Your task to perform on an android device: delete browsing data in the chrome app Image 0: 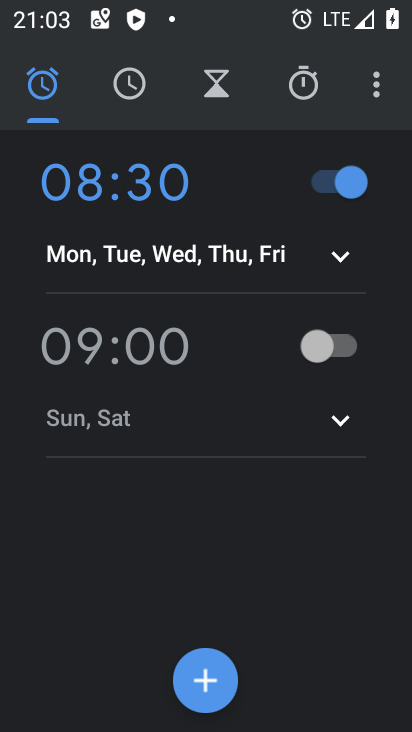
Step 0: press home button
Your task to perform on an android device: delete browsing data in the chrome app Image 1: 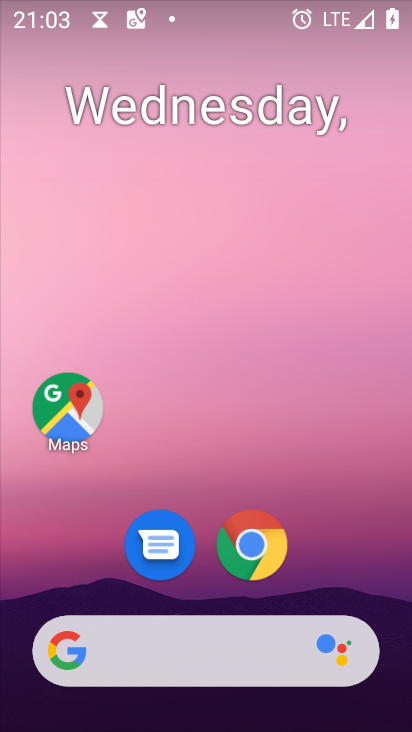
Step 1: click (242, 558)
Your task to perform on an android device: delete browsing data in the chrome app Image 2: 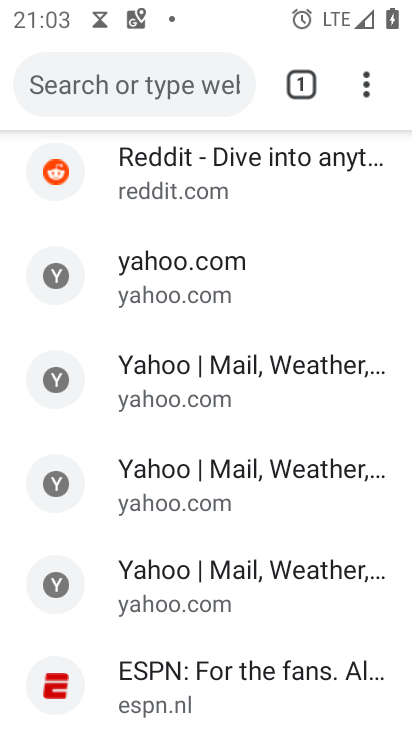
Step 2: drag from (367, 88) to (141, 590)
Your task to perform on an android device: delete browsing data in the chrome app Image 3: 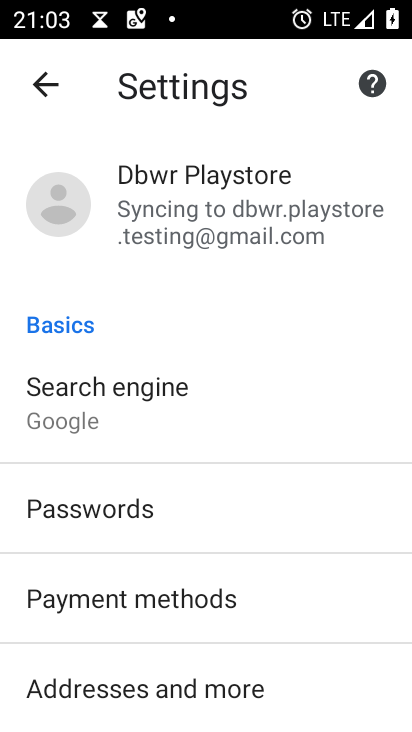
Step 3: drag from (154, 670) to (243, 96)
Your task to perform on an android device: delete browsing data in the chrome app Image 4: 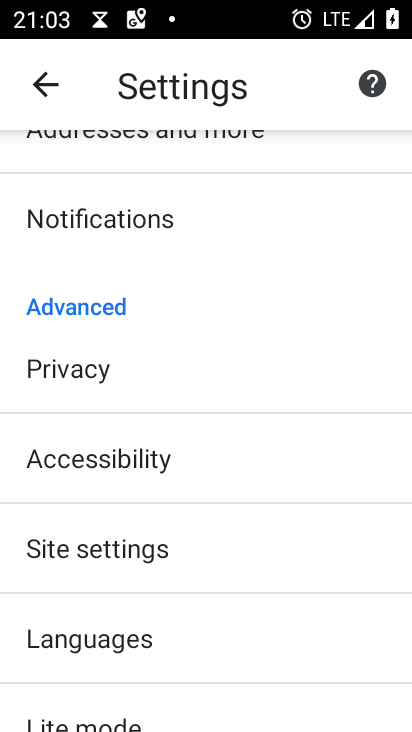
Step 4: drag from (187, 655) to (274, 260)
Your task to perform on an android device: delete browsing data in the chrome app Image 5: 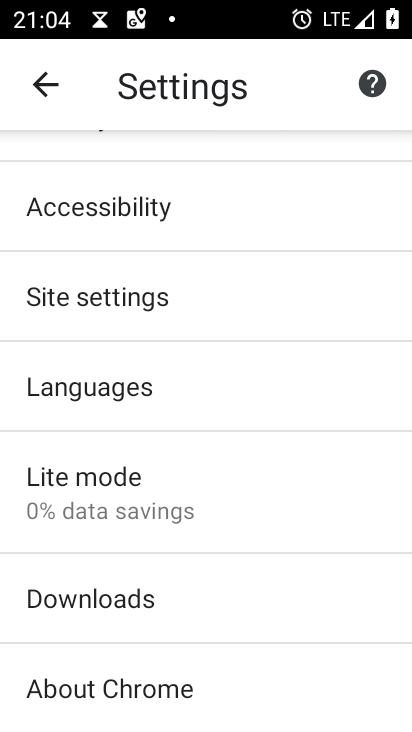
Step 5: drag from (242, 254) to (262, 600)
Your task to perform on an android device: delete browsing data in the chrome app Image 6: 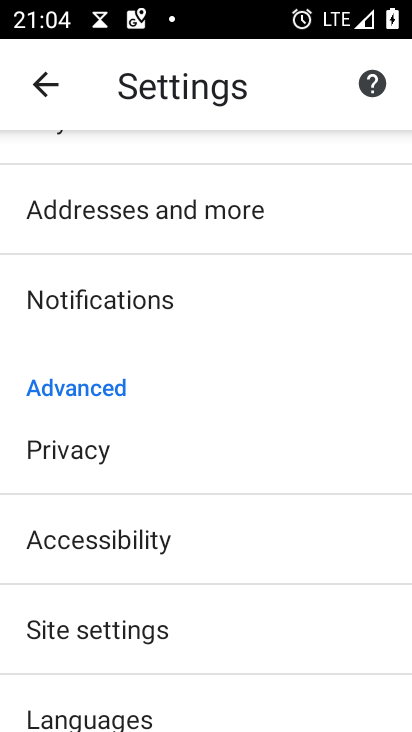
Step 6: click (88, 454)
Your task to perform on an android device: delete browsing data in the chrome app Image 7: 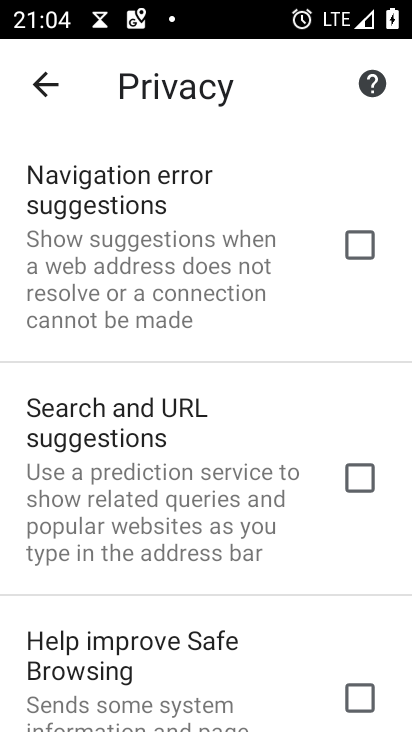
Step 7: drag from (199, 659) to (225, 271)
Your task to perform on an android device: delete browsing data in the chrome app Image 8: 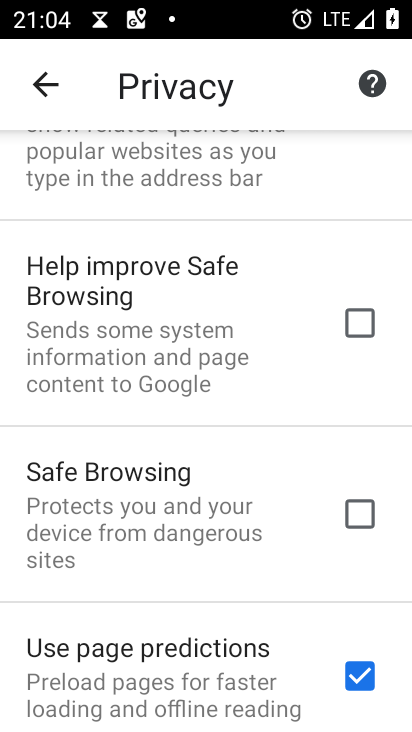
Step 8: drag from (186, 690) to (202, 252)
Your task to perform on an android device: delete browsing data in the chrome app Image 9: 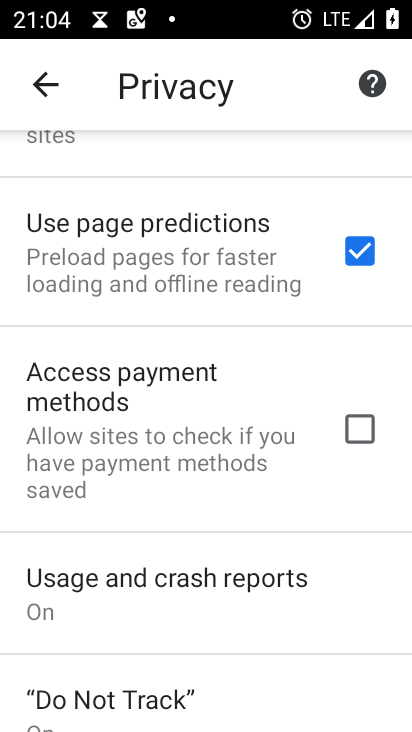
Step 9: drag from (184, 669) to (261, 192)
Your task to perform on an android device: delete browsing data in the chrome app Image 10: 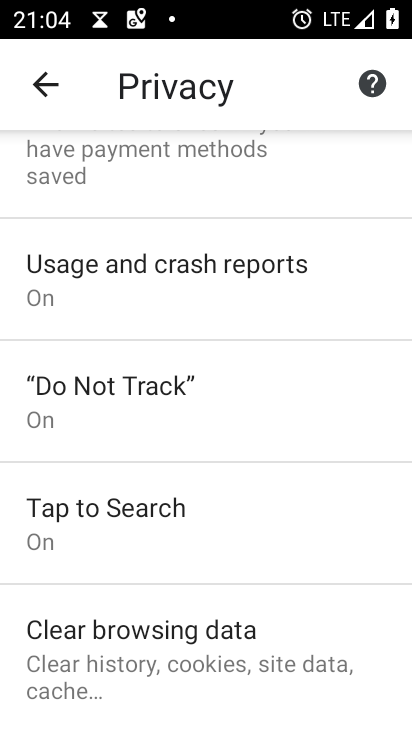
Step 10: click (152, 652)
Your task to perform on an android device: delete browsing data in the chrome app Image 11: 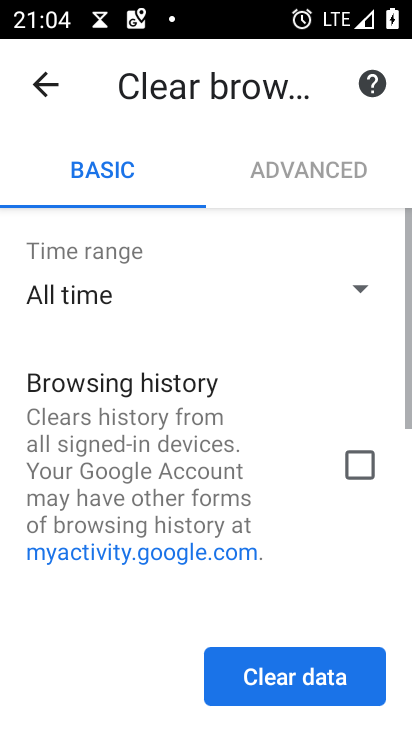
Step 11: click (360, 462)
Your task to perform on an android device: delete browsing data in the chrome app Image 12: 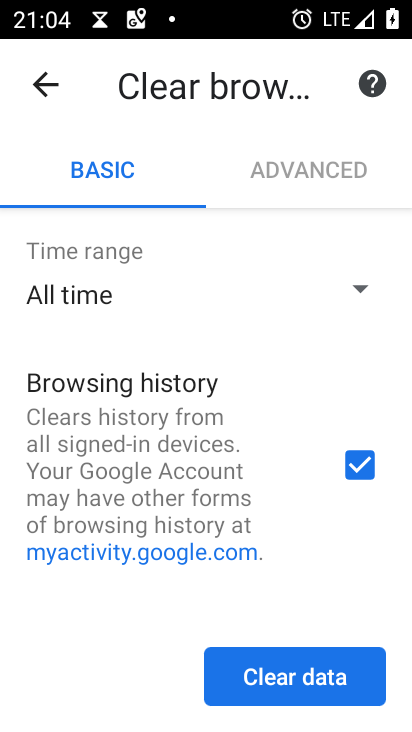
Step 12: drag from (162, 603) to (248, 225)
Your task to perform on an android device: delete browsing data in the chrome app Image 13: 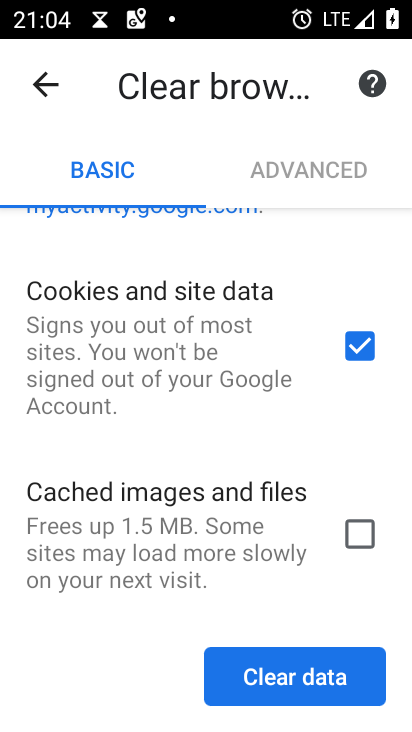
Step 13: click (361, 528)
Your task to perform on an android device: delete browsing data in the chrome app Image 14: 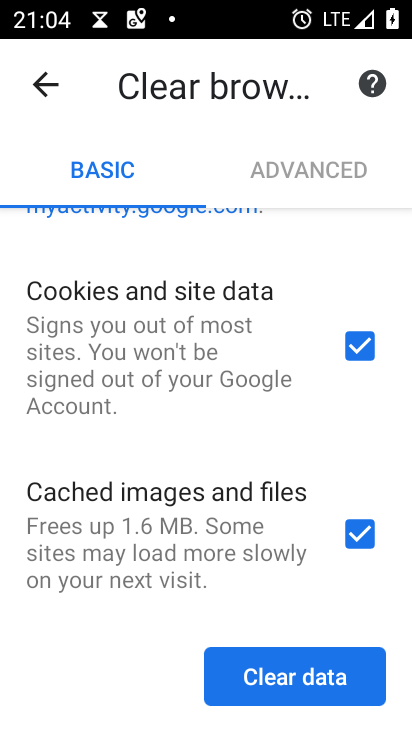
Step 14: click (305, 680)
Your task to perform on an android device: delete browsing data in the chrome app Image 15: 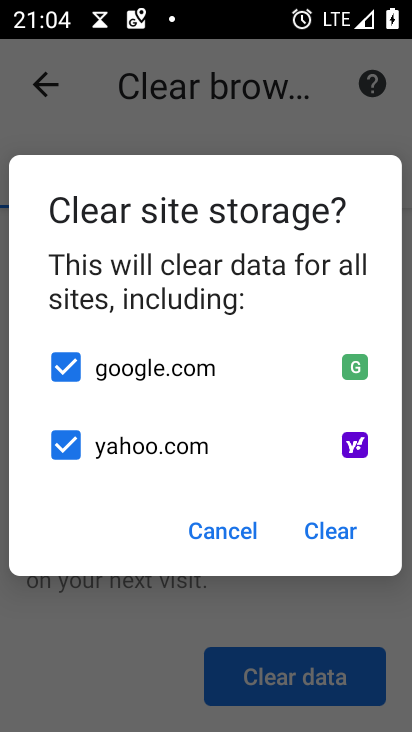
Step 15: click (330, 535)
Your task to perform on an android device: delete browsing data in the chrome app Image 16: 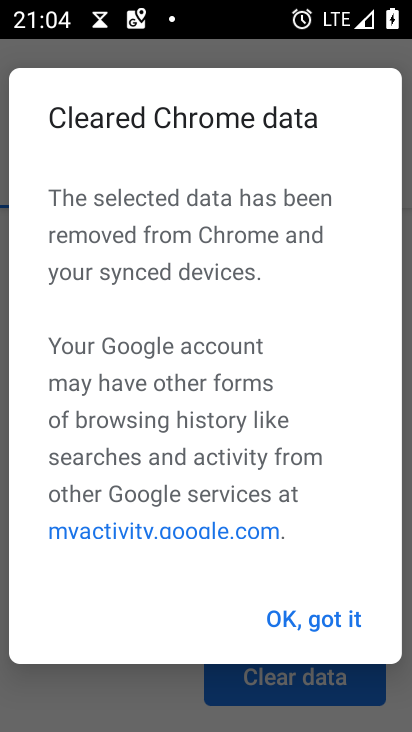
Step 16: click (345, 618)
Your task to perform on an android device: delete browsing data in the chrome app Image 17: 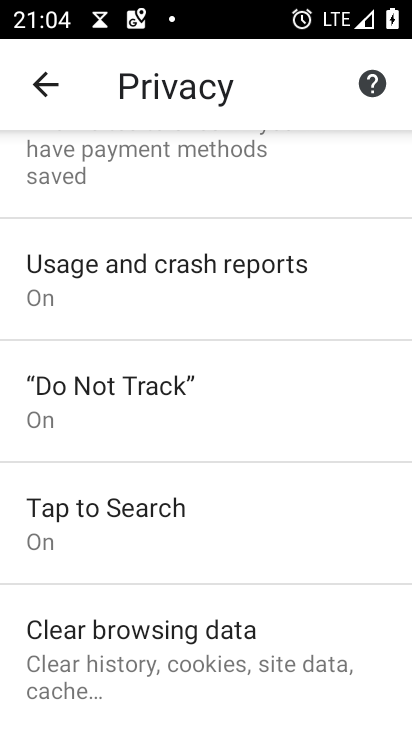
Step 17: task complete